Your task to perform on an android device: Open eBay Image 0: 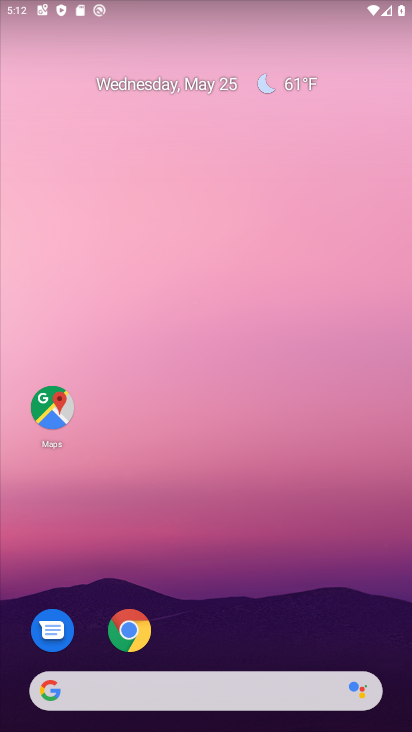
Step 0: click (123, 631)
Your task to perform on an android device: Open eBay Image 1: 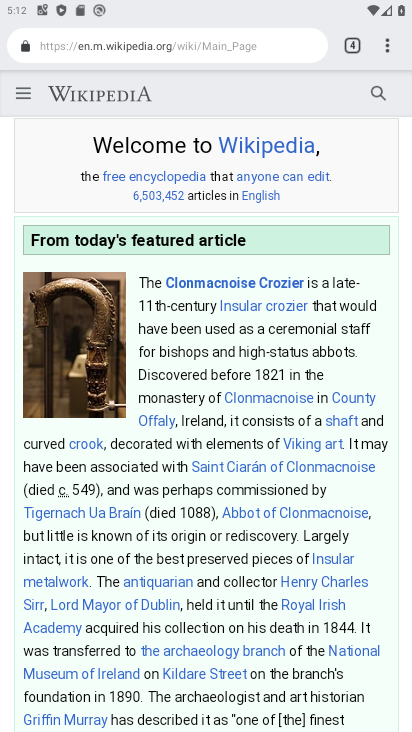
Step 1: click (355, 42)
Your task to perform on an android device: Open eBay Image 2: 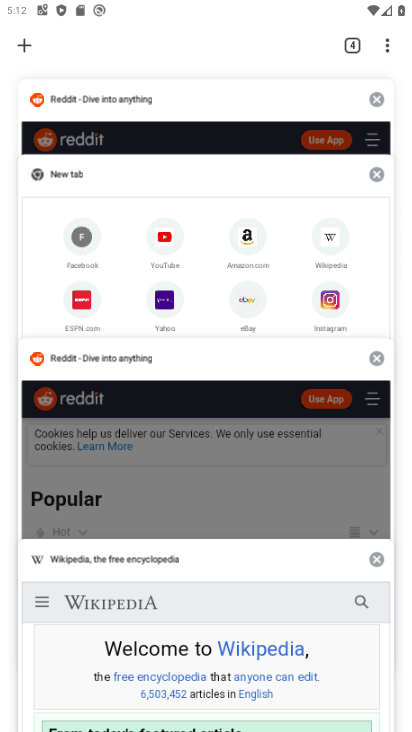
Step 2: click (29, 42)
Your task to perform on an android device: Open eBay Image 3: 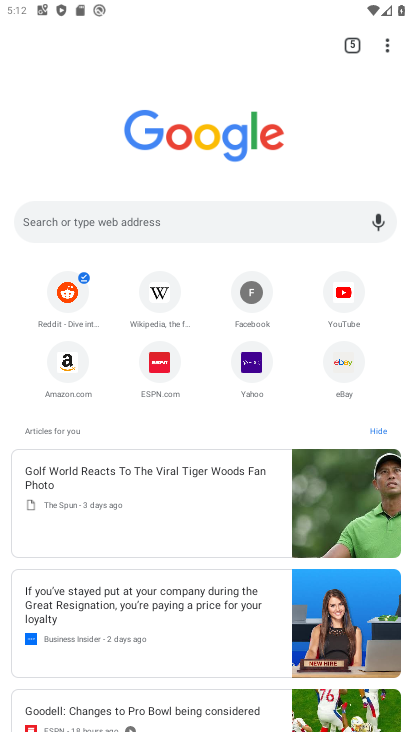
Step 3: click (341, 369)
Your task to perform on an android device: Open eBay Image 4: 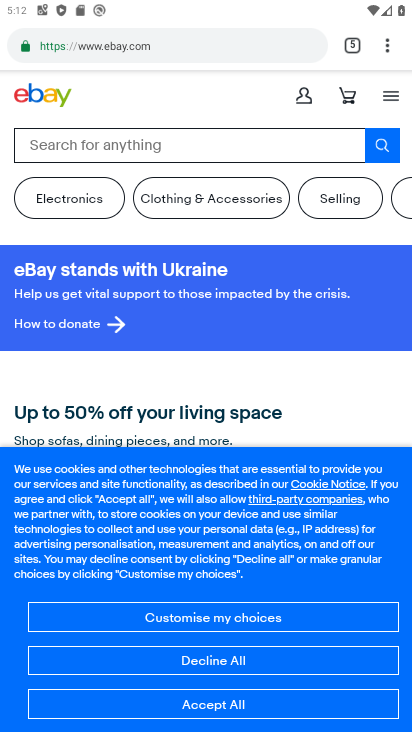
Step 4: task complete